Your task to perform on an android device: Clear the cart on target.com. Add bose quietcomfort 35 to the cart on target.com, then select checkout. Image 0: 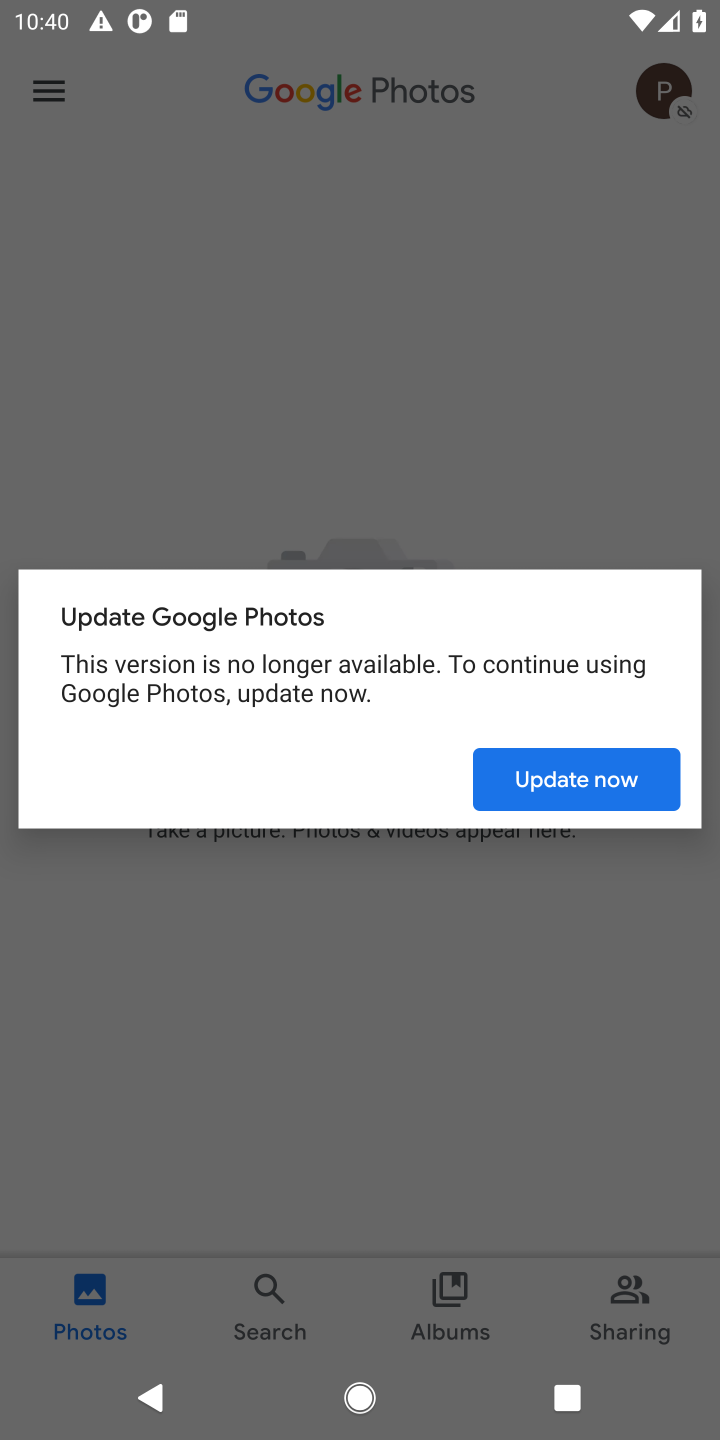
Step 0: press home button
Your task to perform on an android device: Clear the cart on target.com. Add bose quietcomfort 35 to the cart on target.com, then select checkout. Image 1: 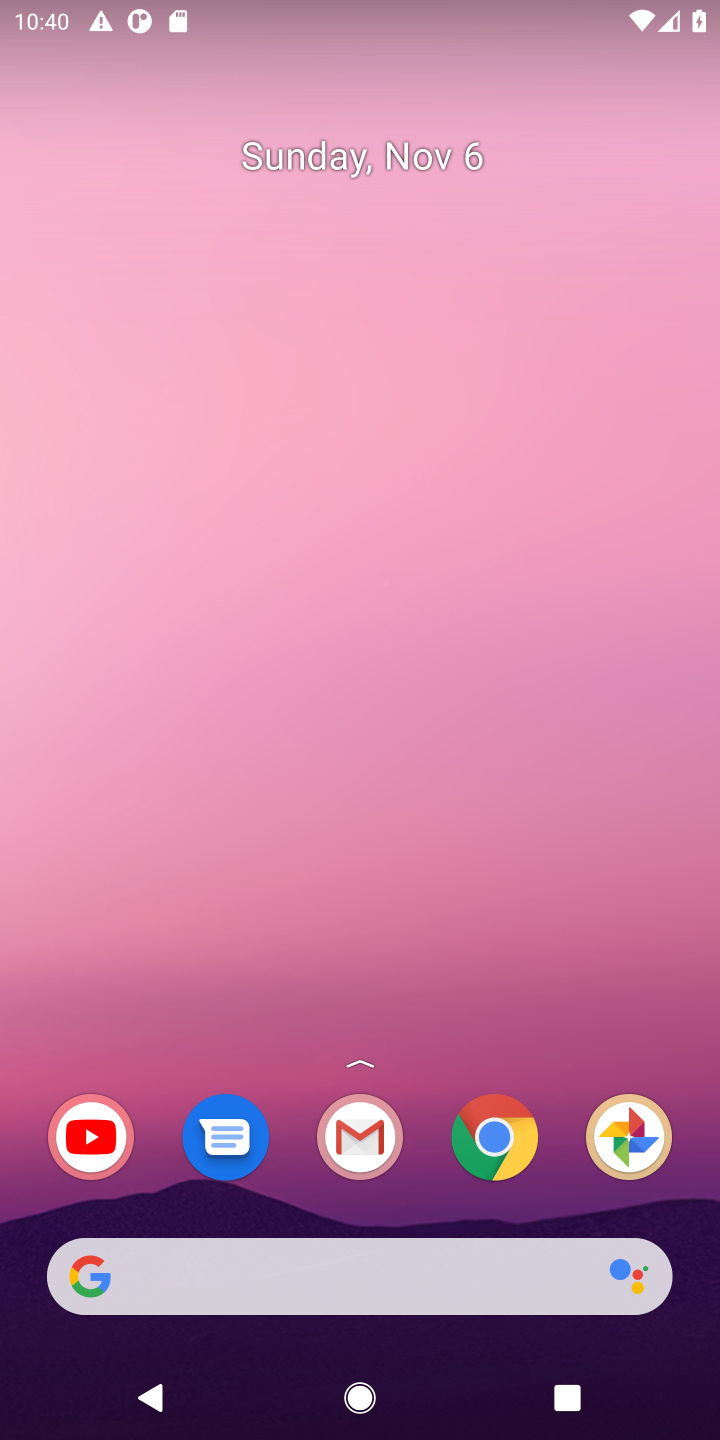
Step 1: drag from (435, 1079) to (336, 0)
Your task to perform on an android device: Clear the cart on target.com. Add bose quietcomfort 35 to the cart on target.com, then select checkout. Image 2: 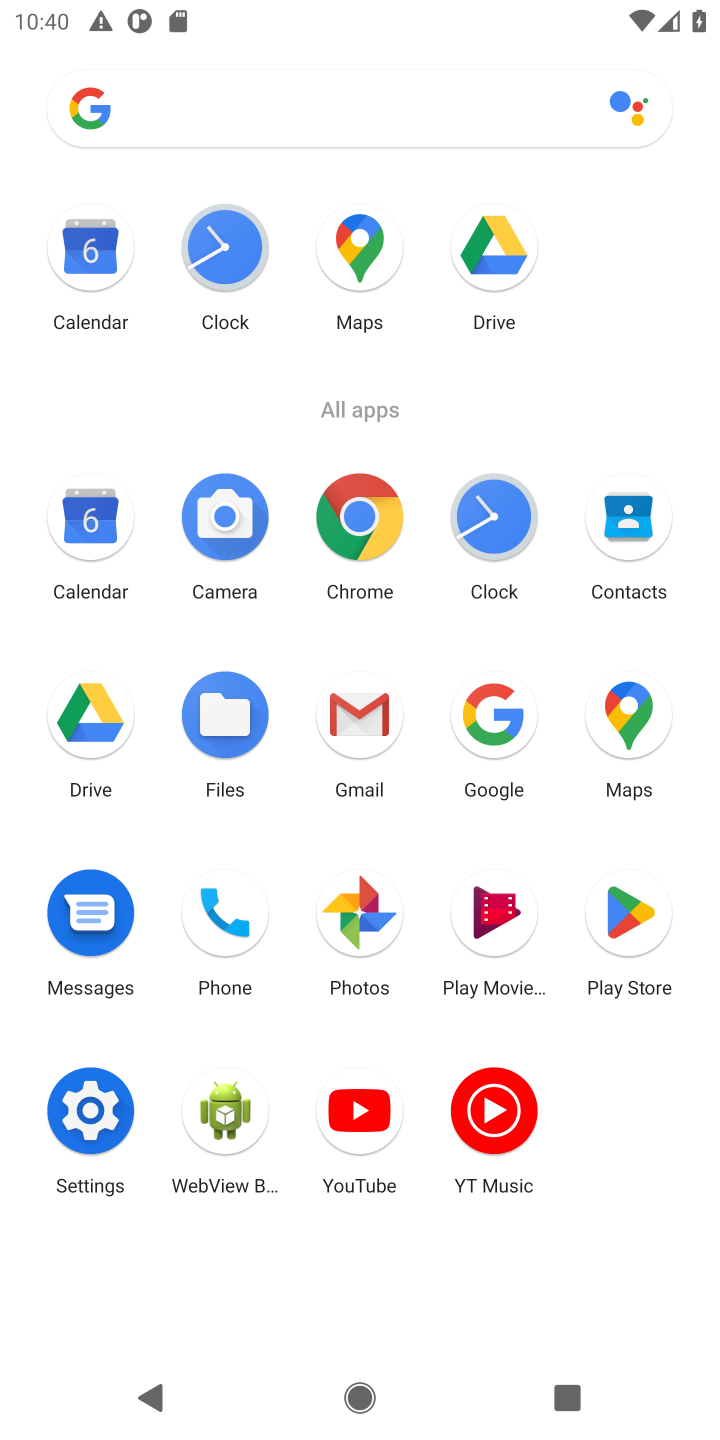
Step 2: click (363, 520)
Your task to perform on an android device: Clear the cart on target.com. Add bose quietcomfort 35 to the cart on target.com, then select checkout. Image 3: 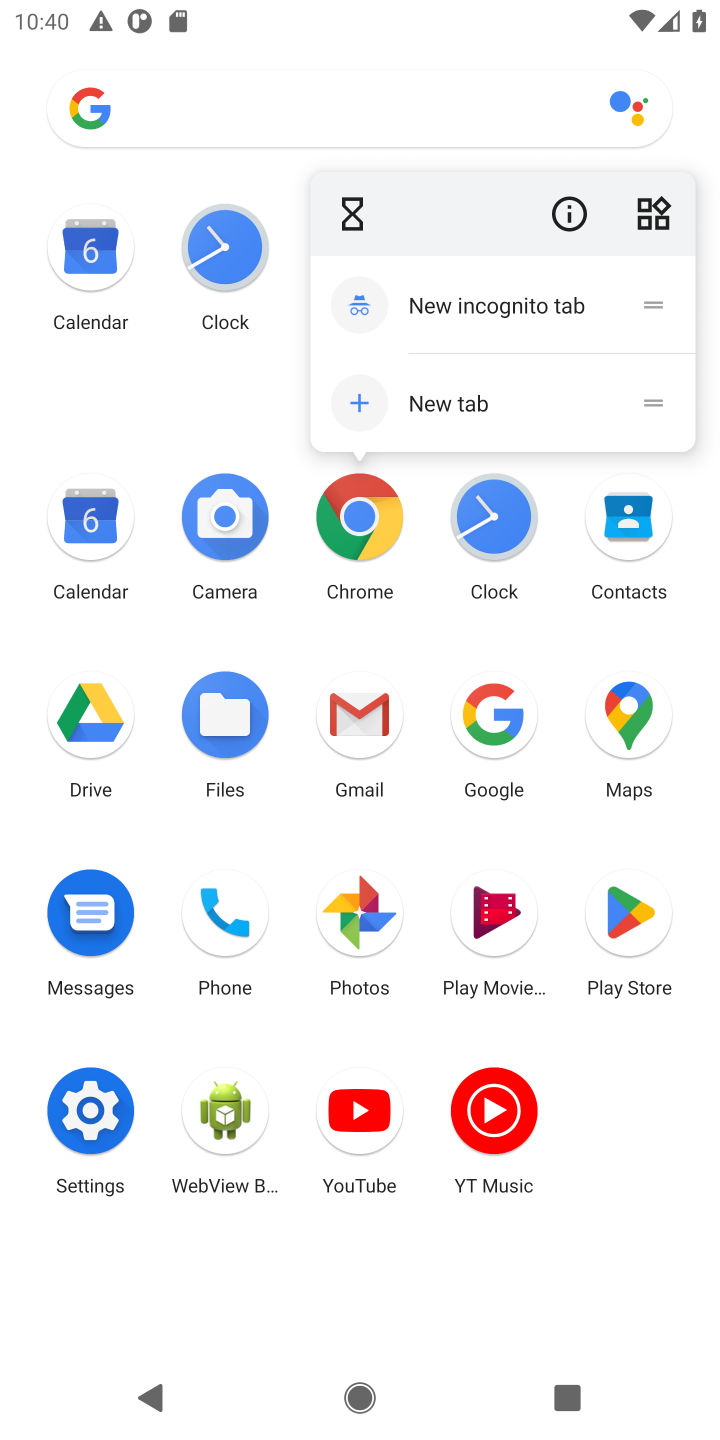
Step 3: click (361, 520)
Your task to perform on an android device: Clear the cart on target.com. Add bose quietcomfort 35 to the cart on target.com, then select checkout. Image 4: 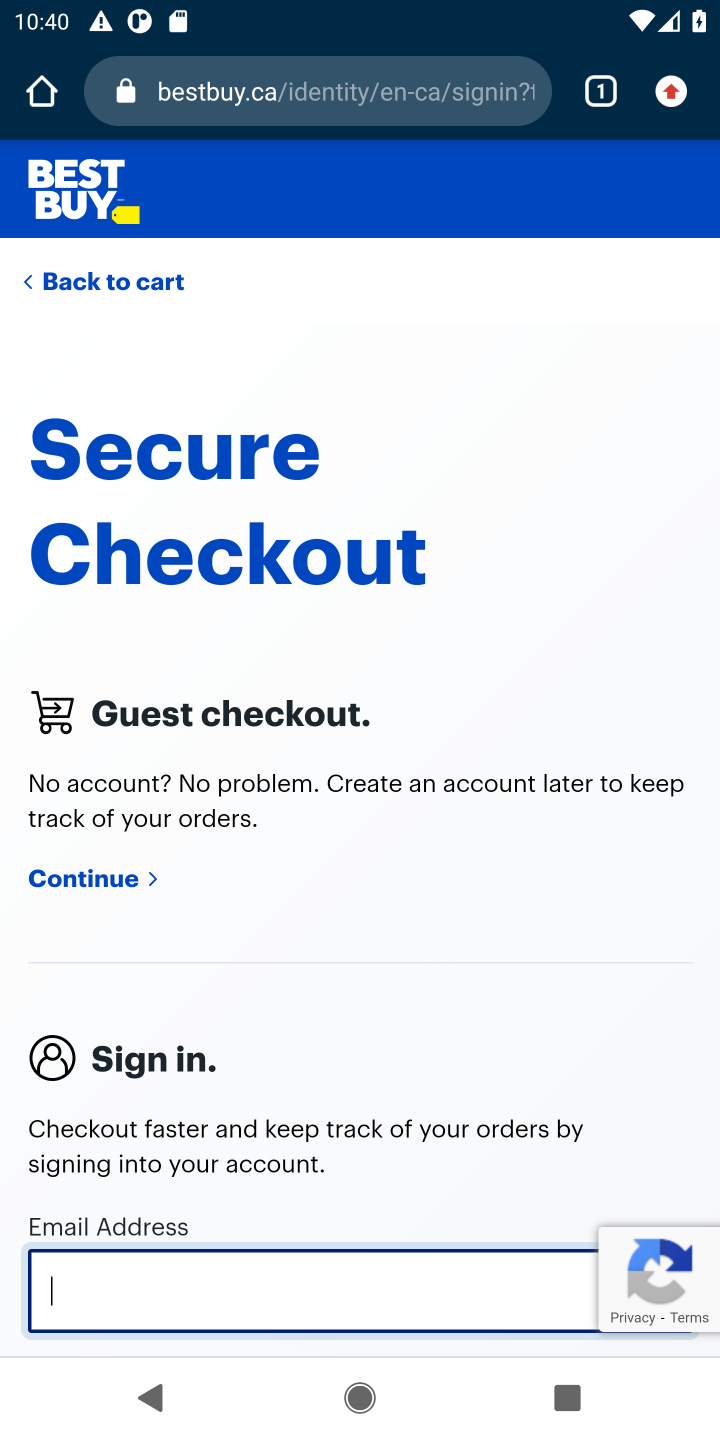
Step 4: click (378, 82)
Your task to perform on an android device: Clear the cart on target.com. Add bose quietcomfort 35 to the cart on target.com, then select checkout. Image 5: 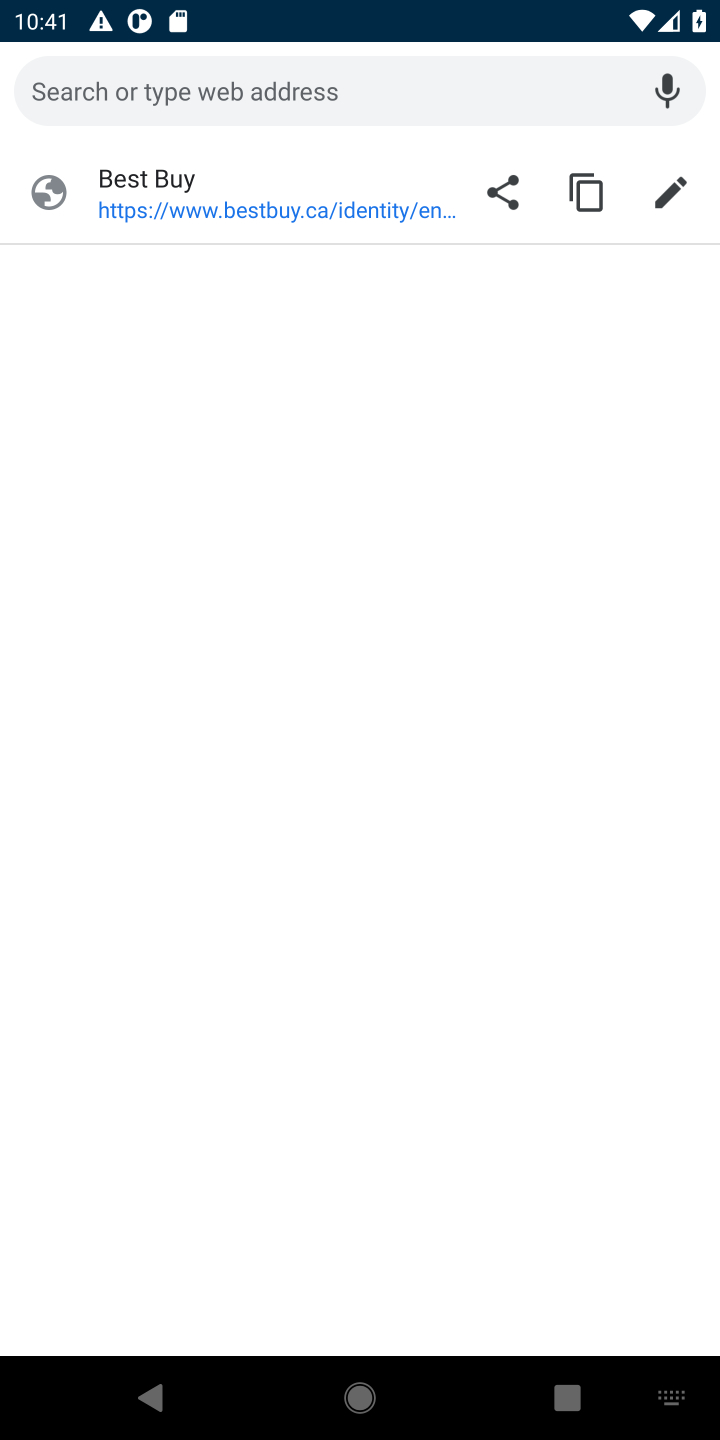
Step 5: type "target.com"
Your task to perform on an android device: Clear the cart on target.com. Add bose quietcomfort 35 to the cart on target.com, then select checkout. Image 6: 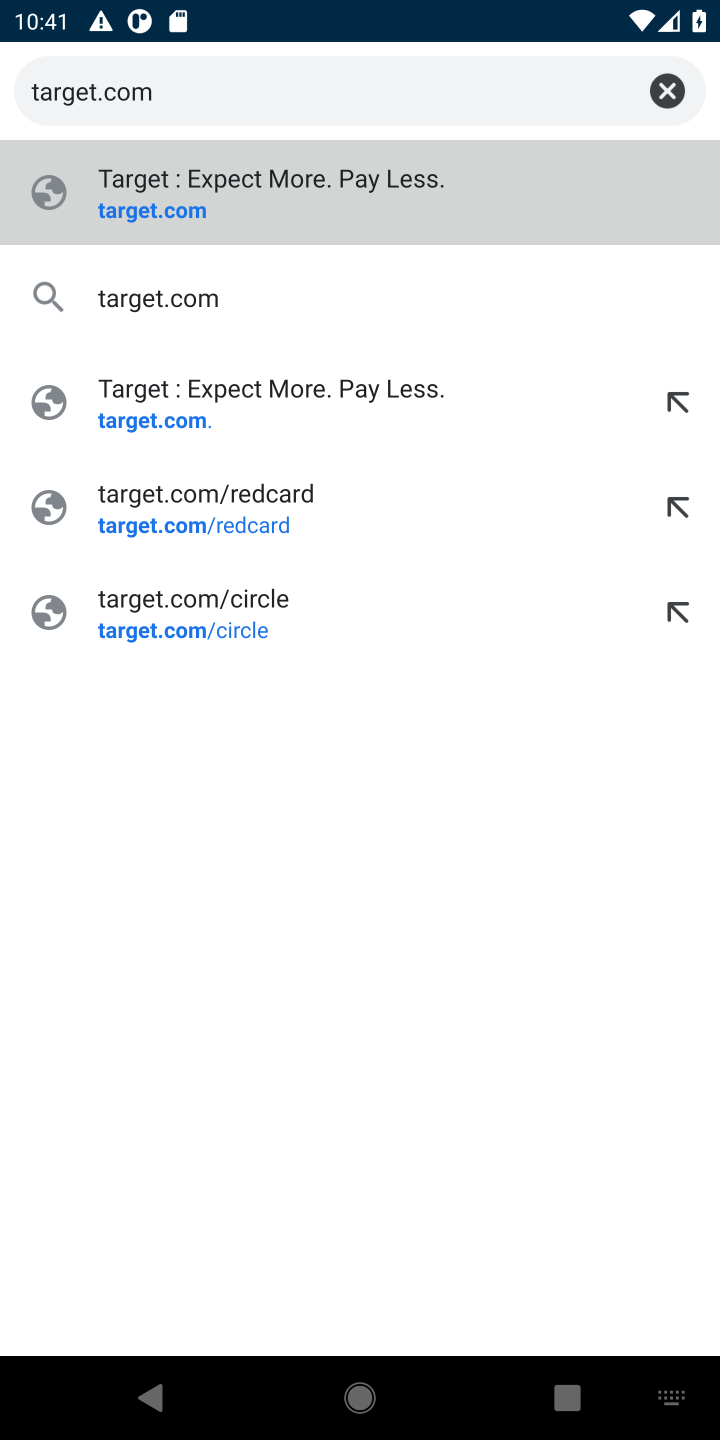
Step 6: press enter
Your task to perform on an android device: Clear the cart on target.com. Add bose quietcomfort 35 to the cart on target.com, then select checkout. Image 7: 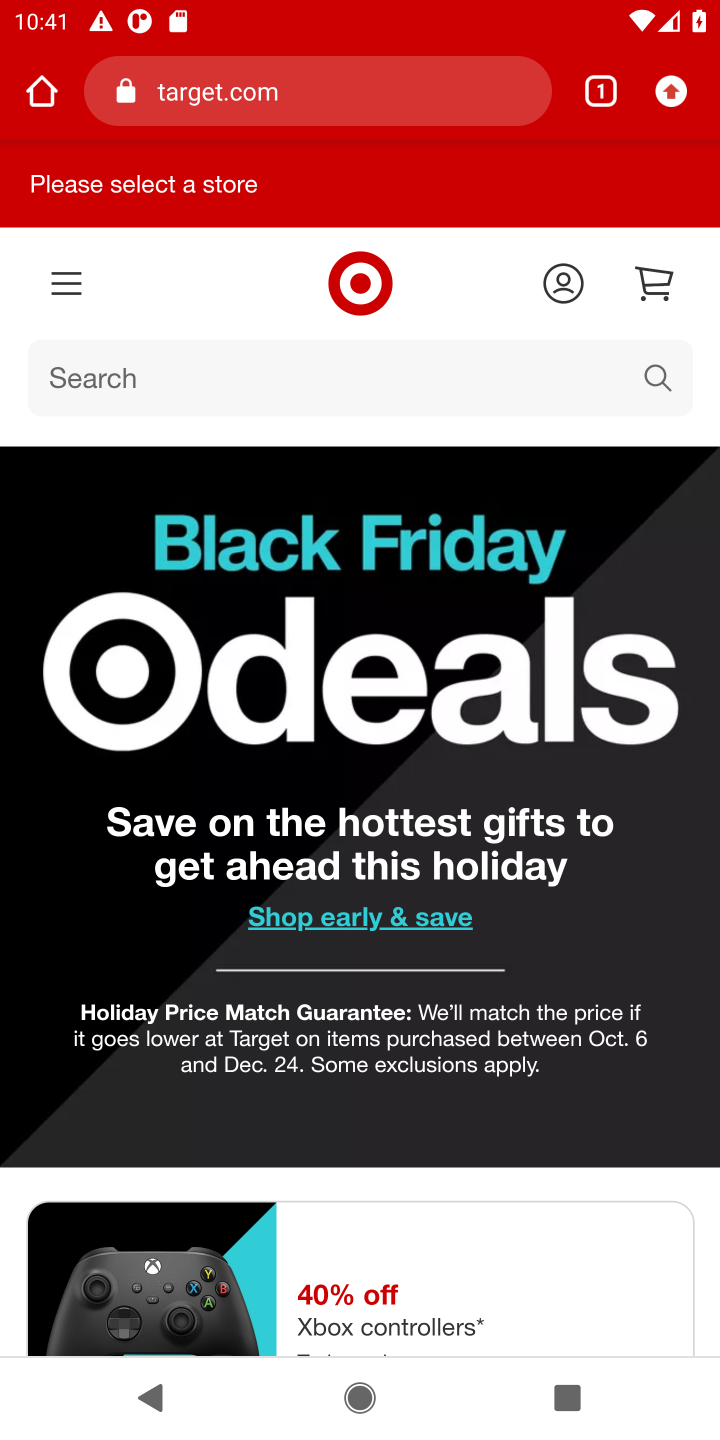
Step 7: click (662, 289)
Your task to perform on an android device: Clear the cart on target.com. Add bose quietcomfort 35 to the cart on target.com, then select checkout. Image 8: 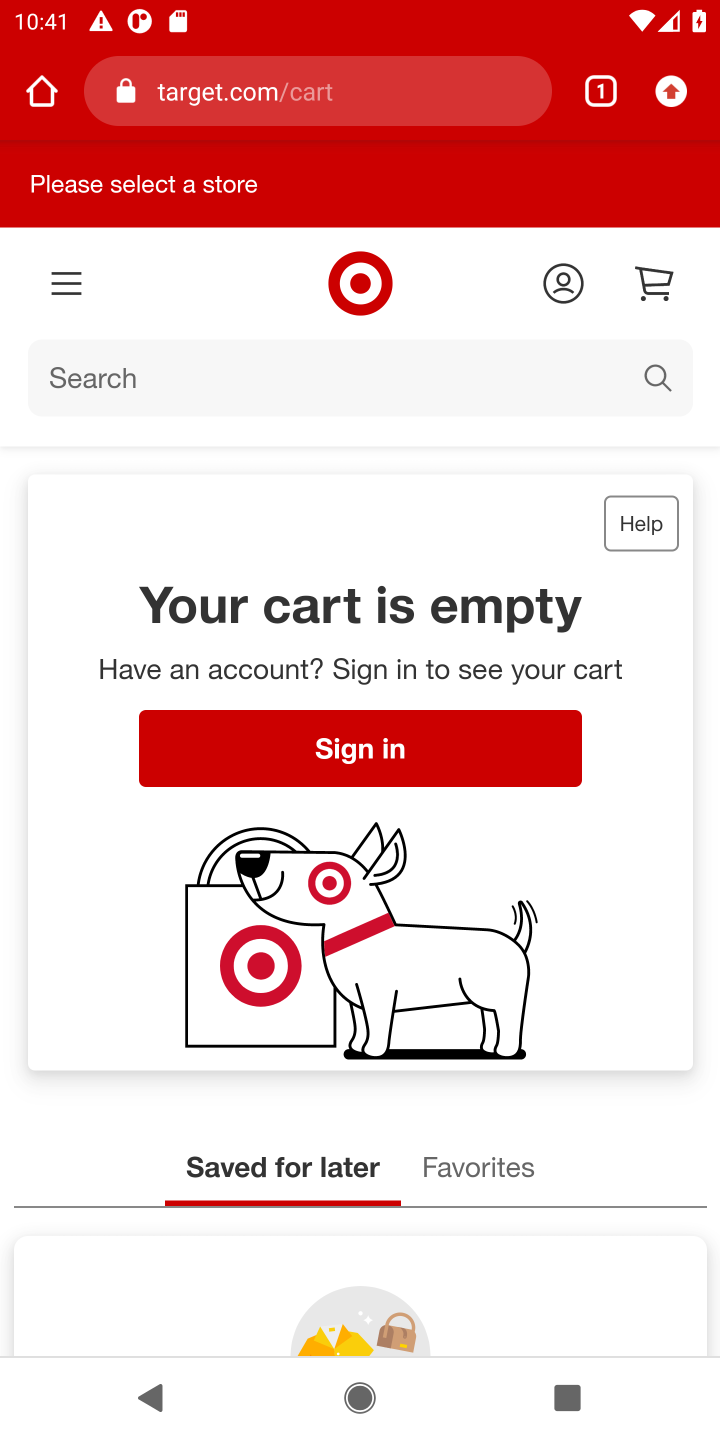
Step 8: click (506, 383)
Your task to perform on an android device: Clear the cart on target.com. Add bose quietcomfort 35 to the cart on target.com, then select checkout. Image 9: 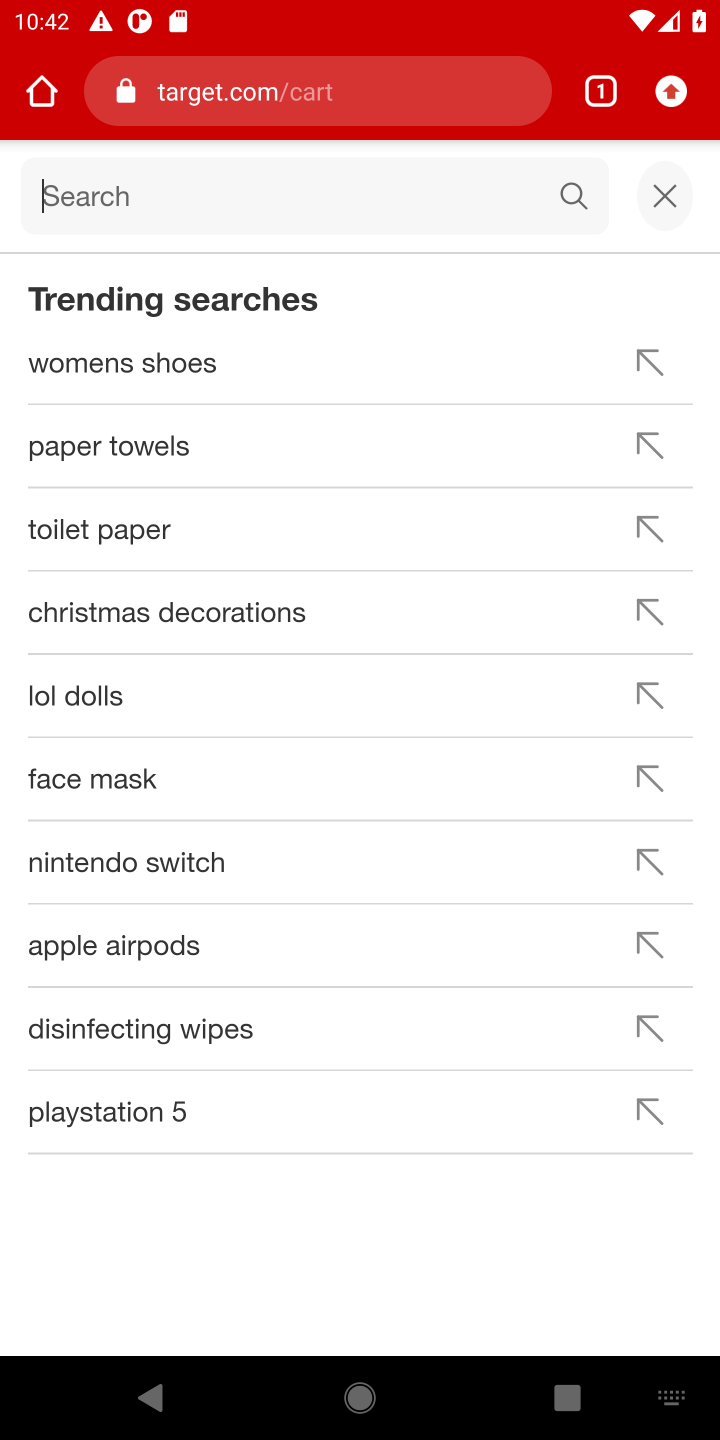
Step 9: type "bose quietcomfort 5"
Your task to perform on an android device: Clear the cart on target.com. Add bose quietcomfort 35 to the cart on target.com, then select checkout. Image 10: 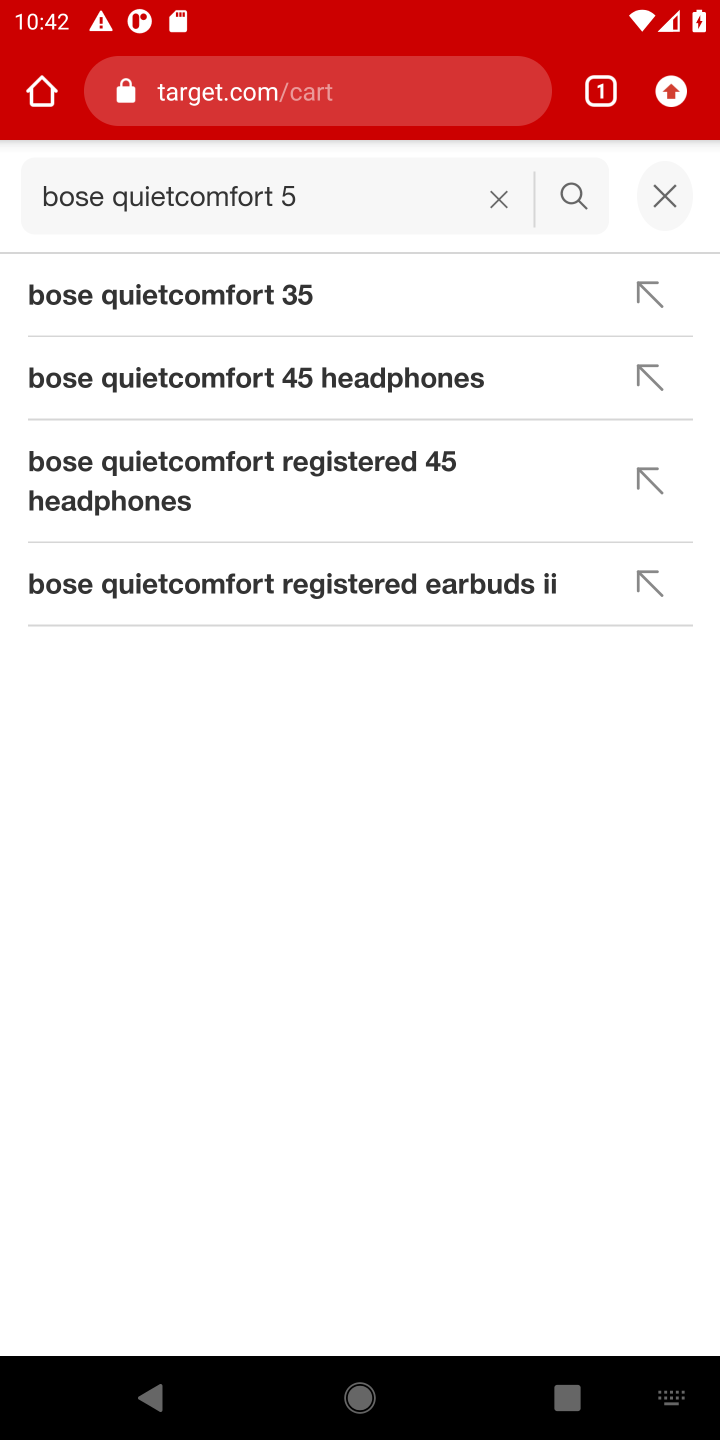
Step 10: press enter
Your task to perform on an android device: Clear the cart on target.com. Add bose quietcomfort 35 to the cart on target.com, then select checkout. Image 11: 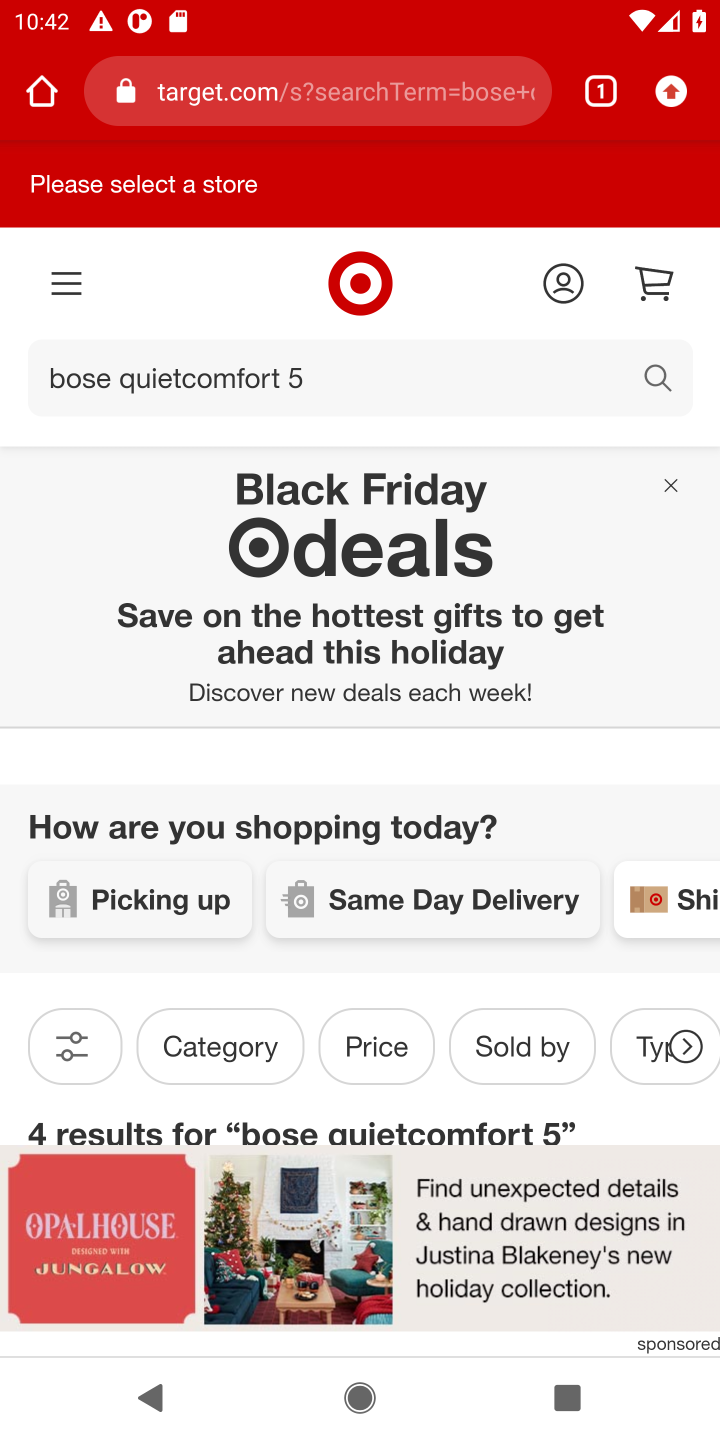
Step 11: drag from (465, 1123) to (496, 352)
Your task to perform on an android device: Clear the cart on target.com. Add bose quietcomfort 35 to the cart on target.com, then select checkout. Image 12: 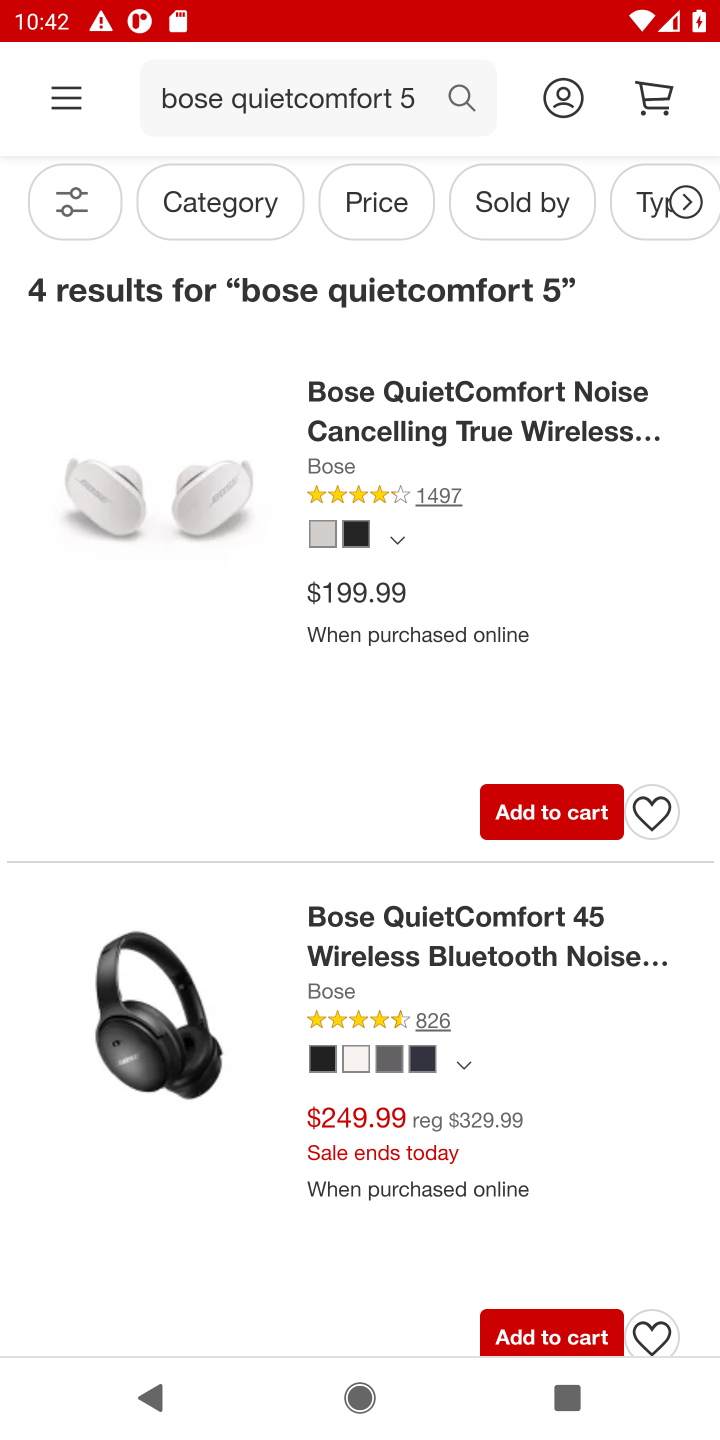
Step 12: click (395, 1137)
Your task to perform on an android device: Clear the cart on target.com. Add bose quietcomfort 35 to the cart on target.com, then select checkout. Image 13: 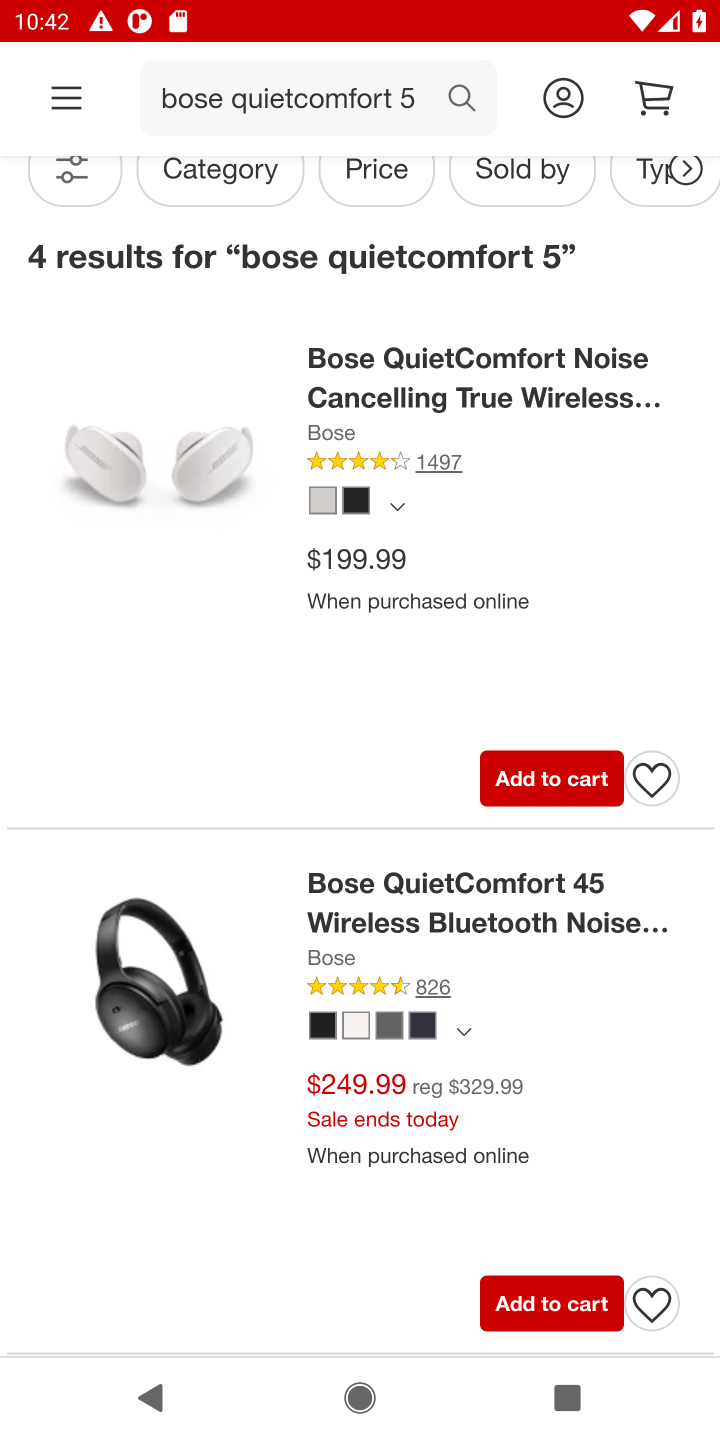
Step 13: drag from (395, 683) to (260, 1363)
Your task to perform on an android device: Clear the cart on target.com. Add bose quietcomfort 35 to the cart on target.com, then select checkout. Image 14: 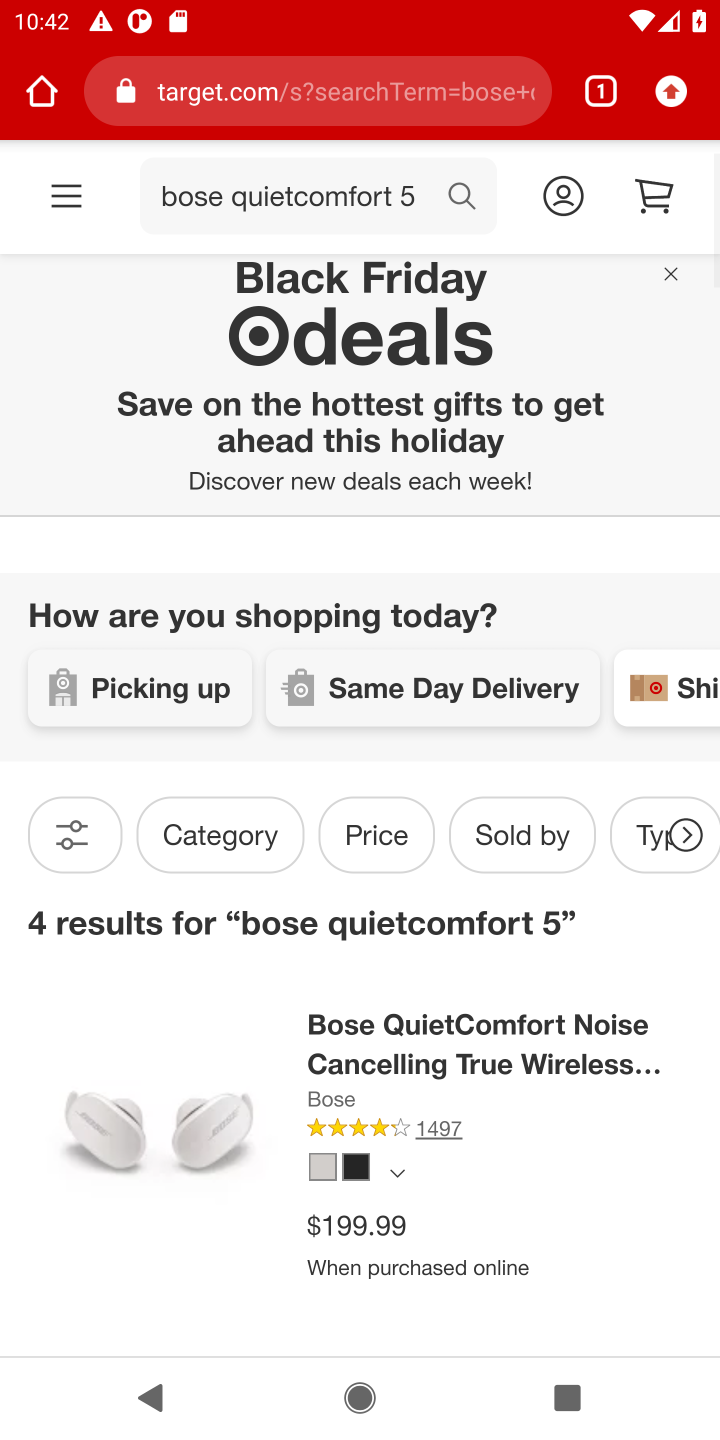
Step 14: drag from (366, 999) to (358, 1071)
Your task to perform on an android device: Clear the cart on target.com. Add bose quietcomfort 35 to the cart on target.com, then select checkout. Image 15: 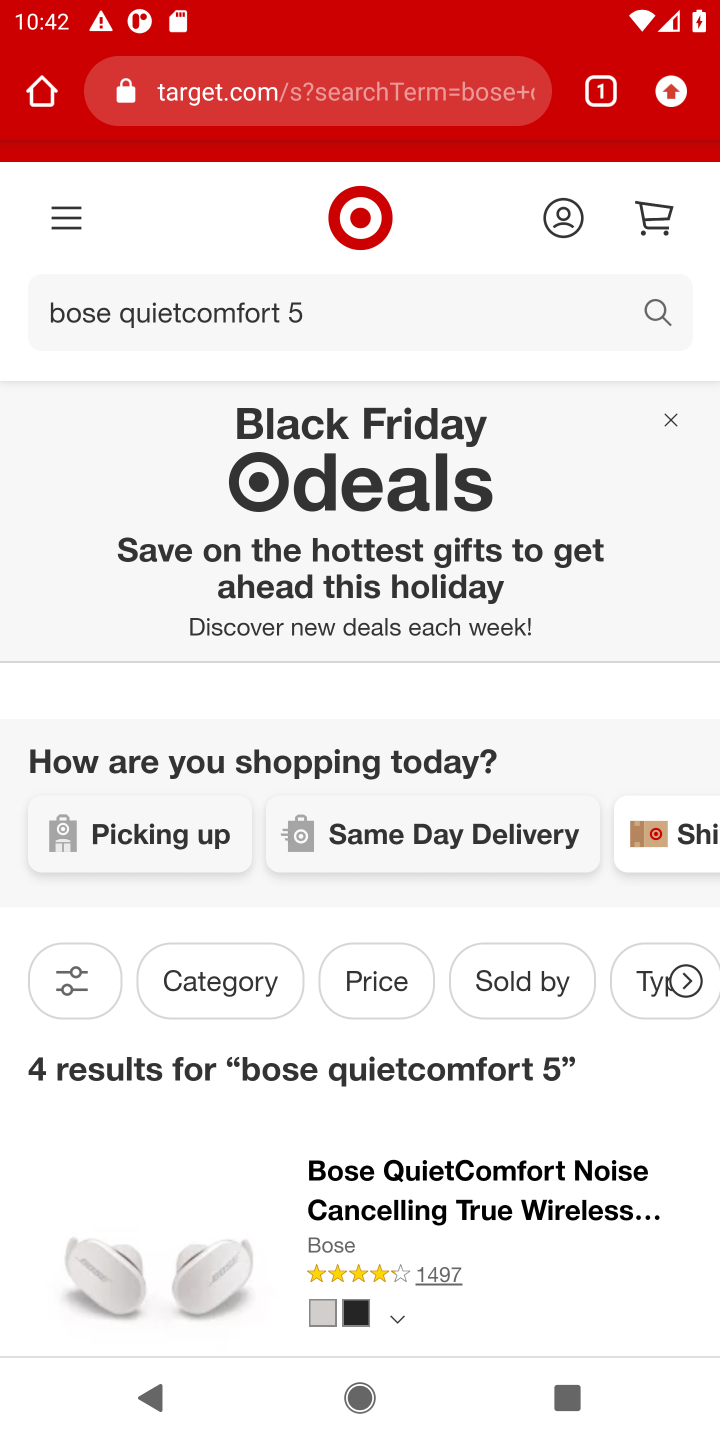
Step 15: click (292, 306)
Your task to perform on an android device: Clear the cart on target.com. Add bose quietcomfort 35 to the cart on target.com, then select checkout. Image 16: 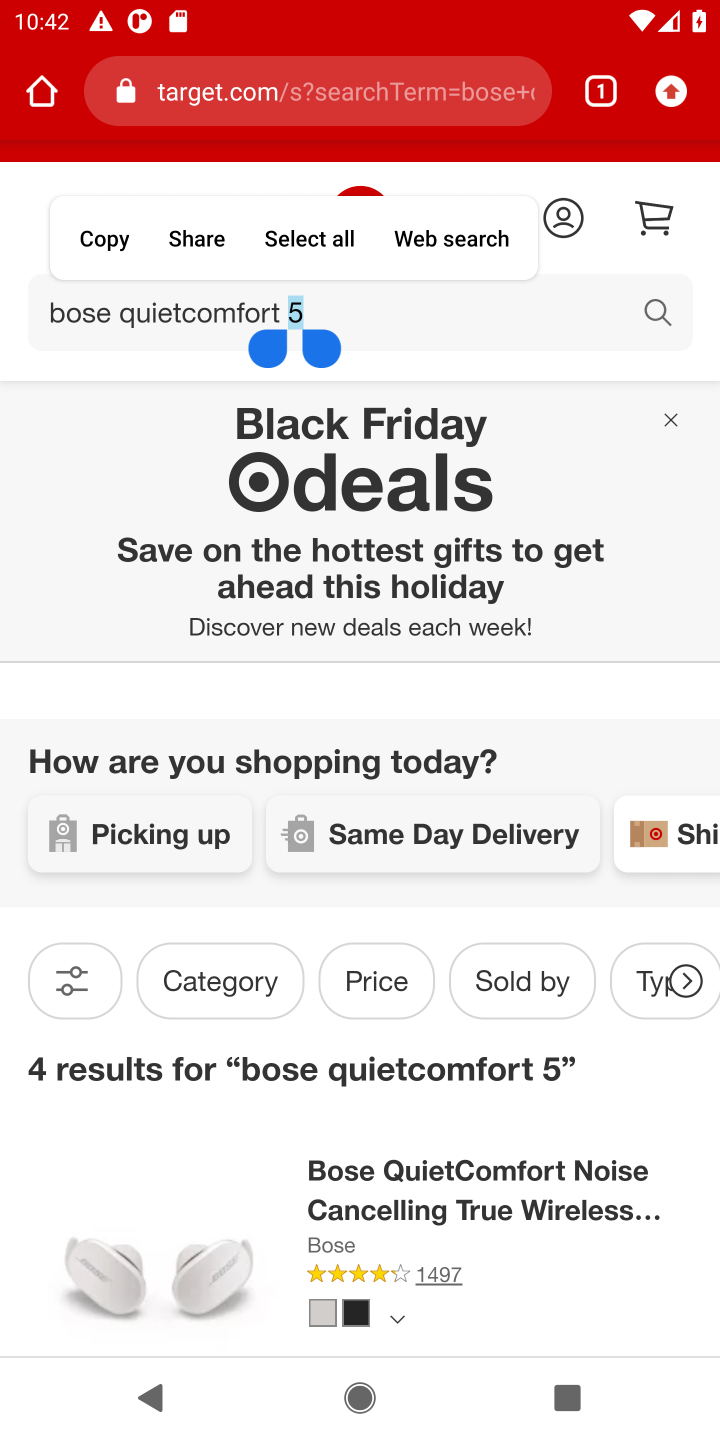
Step 16: type "35"
Your task to perform on an android device: Clear the cart on target.com. Add bose quietcomfort 35 to the cart on target.com, then select checkout. Image 17: 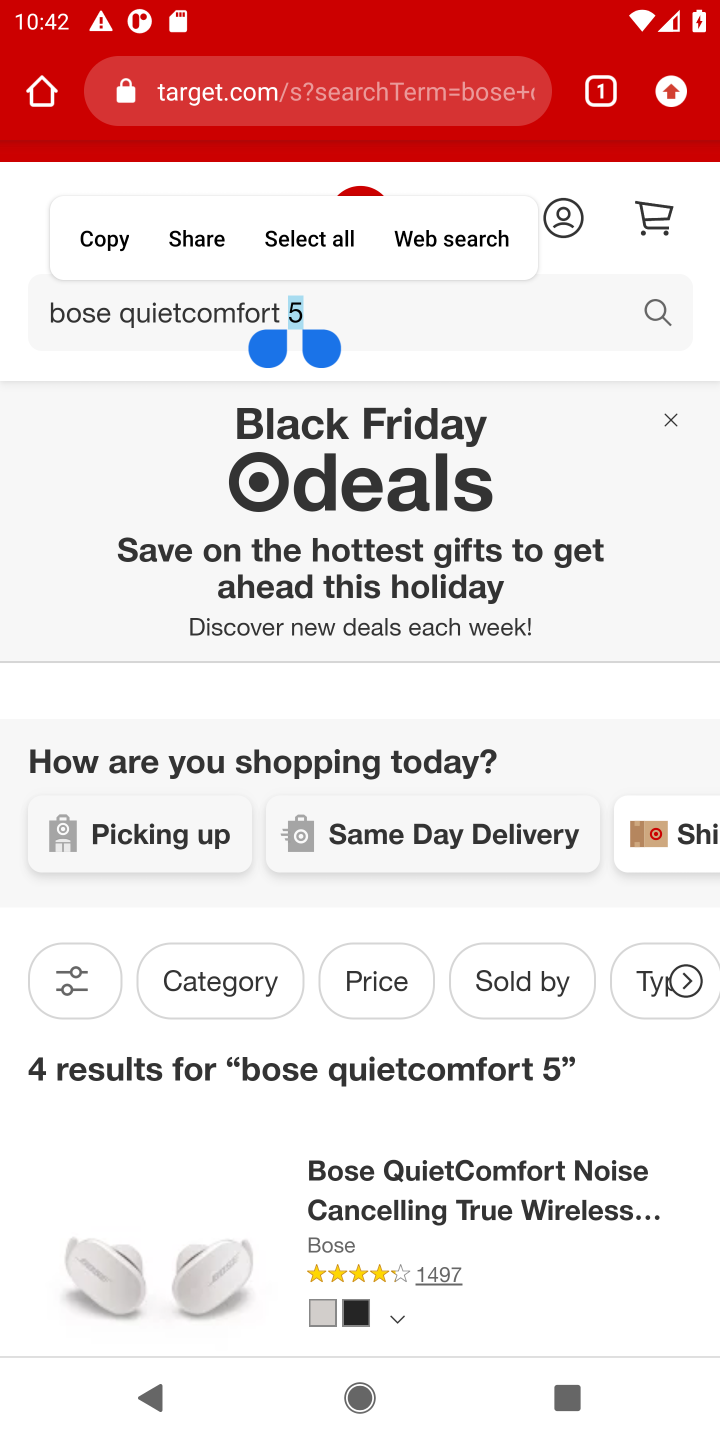
Step 17: type ""
Your task to perform on an android device: Clear the cart on target.com. Add bose quietcomfort 35 to the cart on target.com, then select checkout. Image 18: 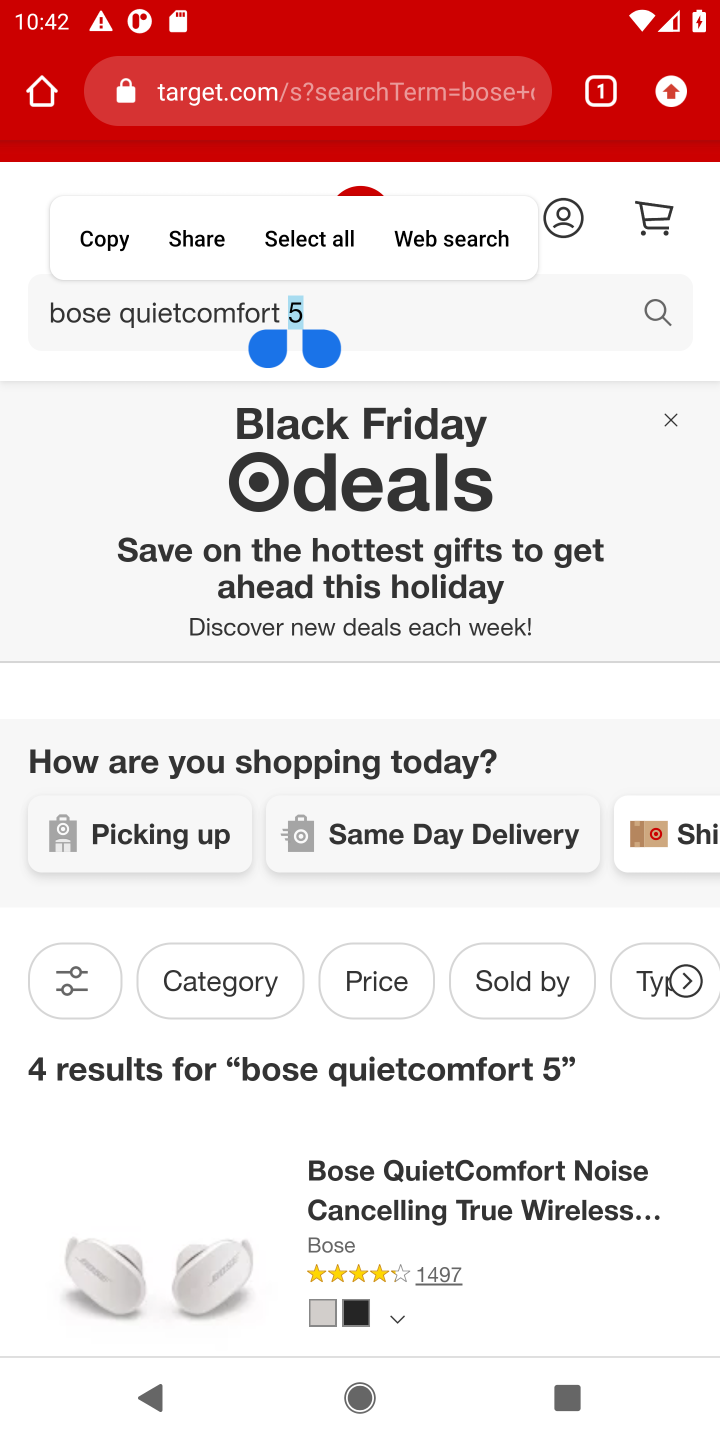
Step 18: click (340, 246)
Your task to perform on an android device: Clear the cart on target.com. Add bose quietcomfort 35 to the cart on target.com, then select checkout. Image 19: 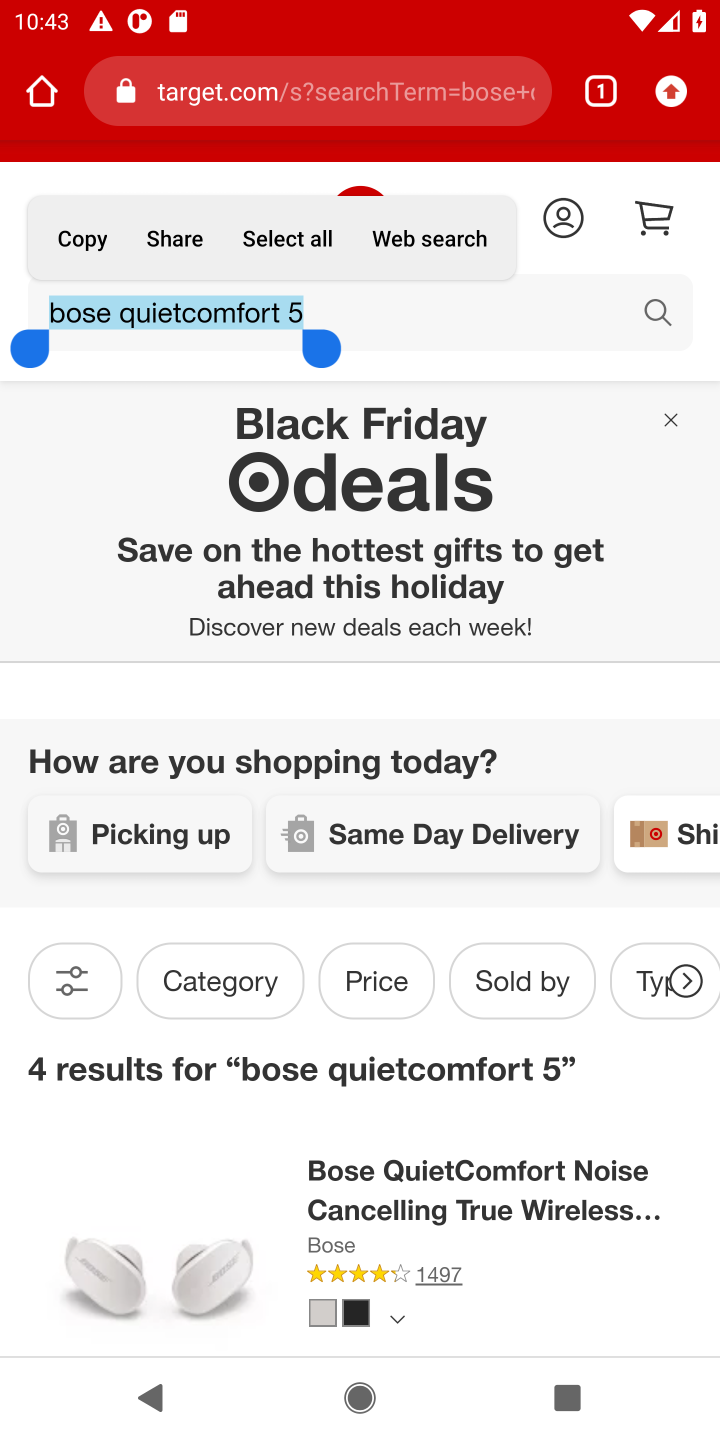
Step 19: click (512, 323)
Your task to perform on an android device: Clear the cart on target.com. Add bose quietcomfort 35 to the cart on target.com, then select checkout. Image 20: 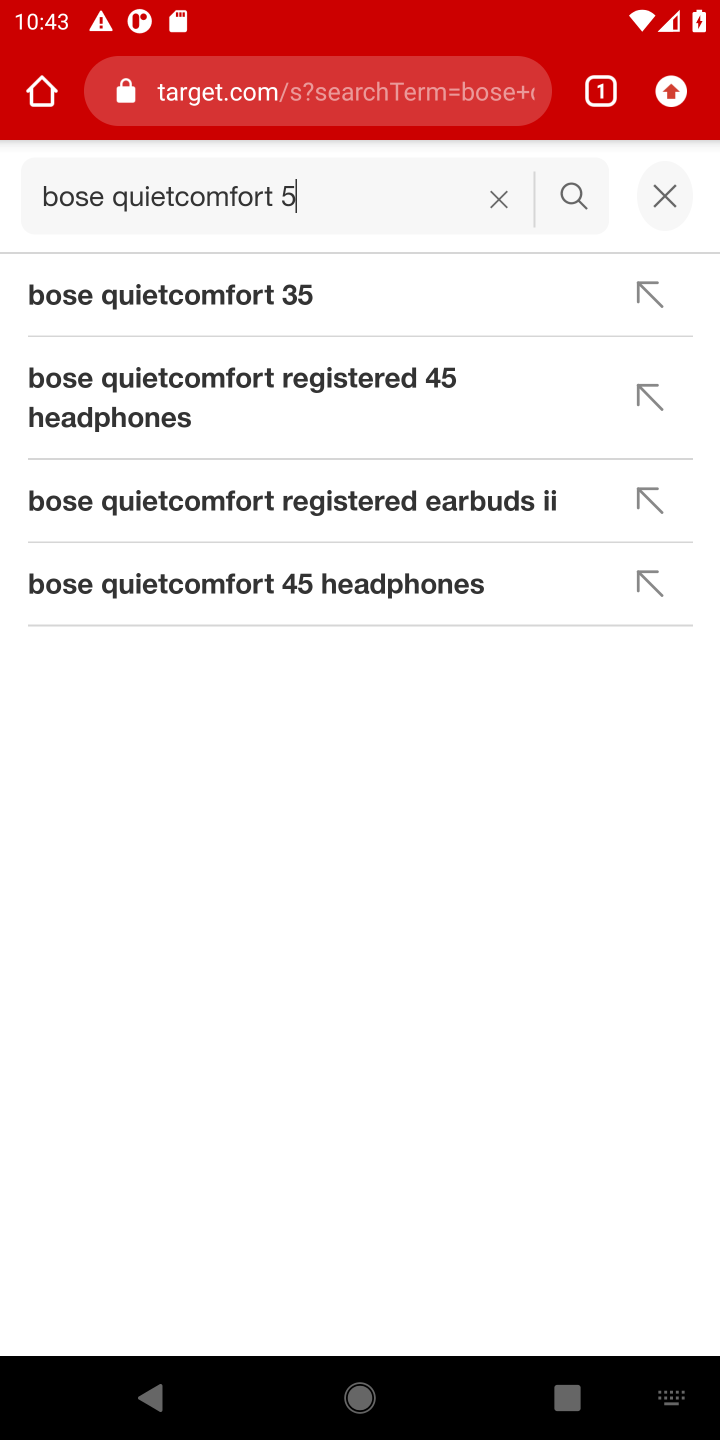
Step 20: click (339, 297)
Your task to perform on an android device: Clear the cart on target.com. Add bose quietcomfort 35 to the cart on target.com, then select checkout. Image 21: 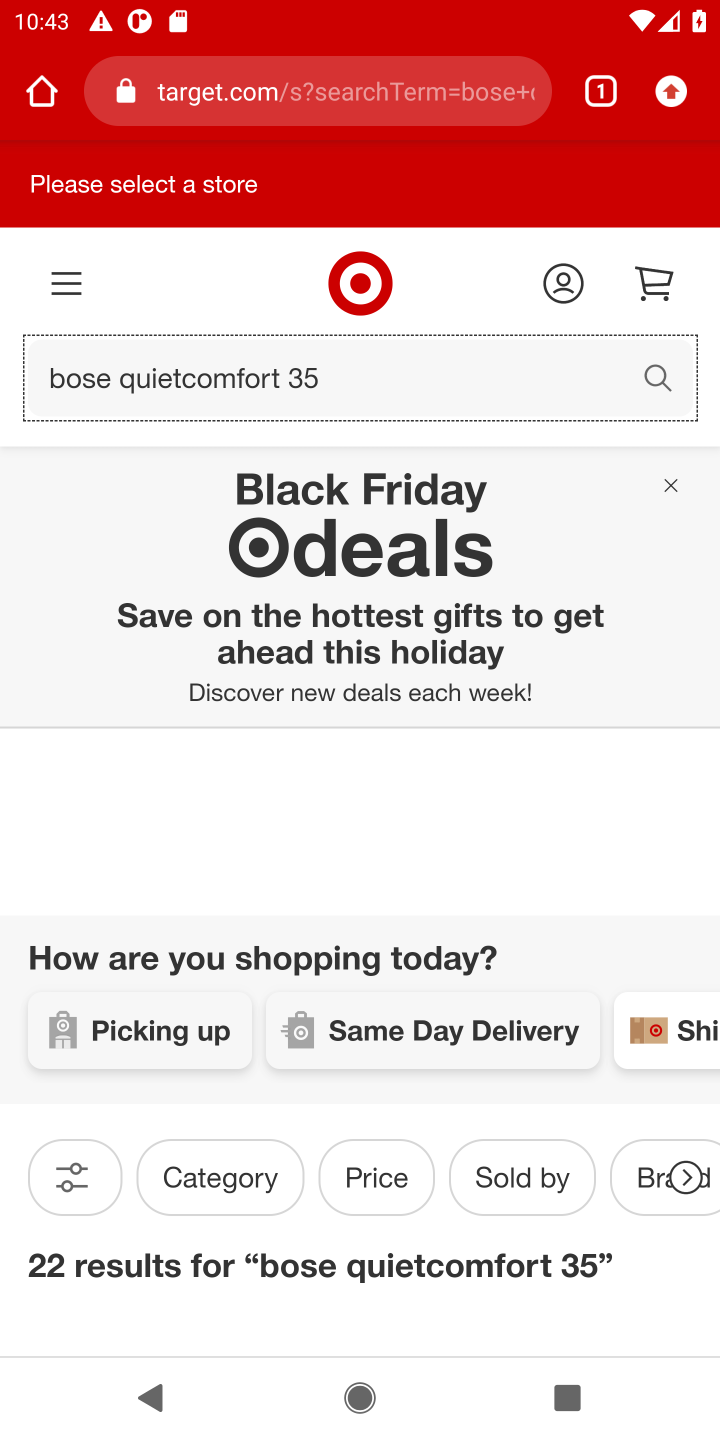
Step 21: drag from (393, 948) to (360, 254)
Your task to perform on an android device: Clear the cart on target.com. Add bose quietcomfort 35 to the cart on target.com, then select checkout. Image 22: 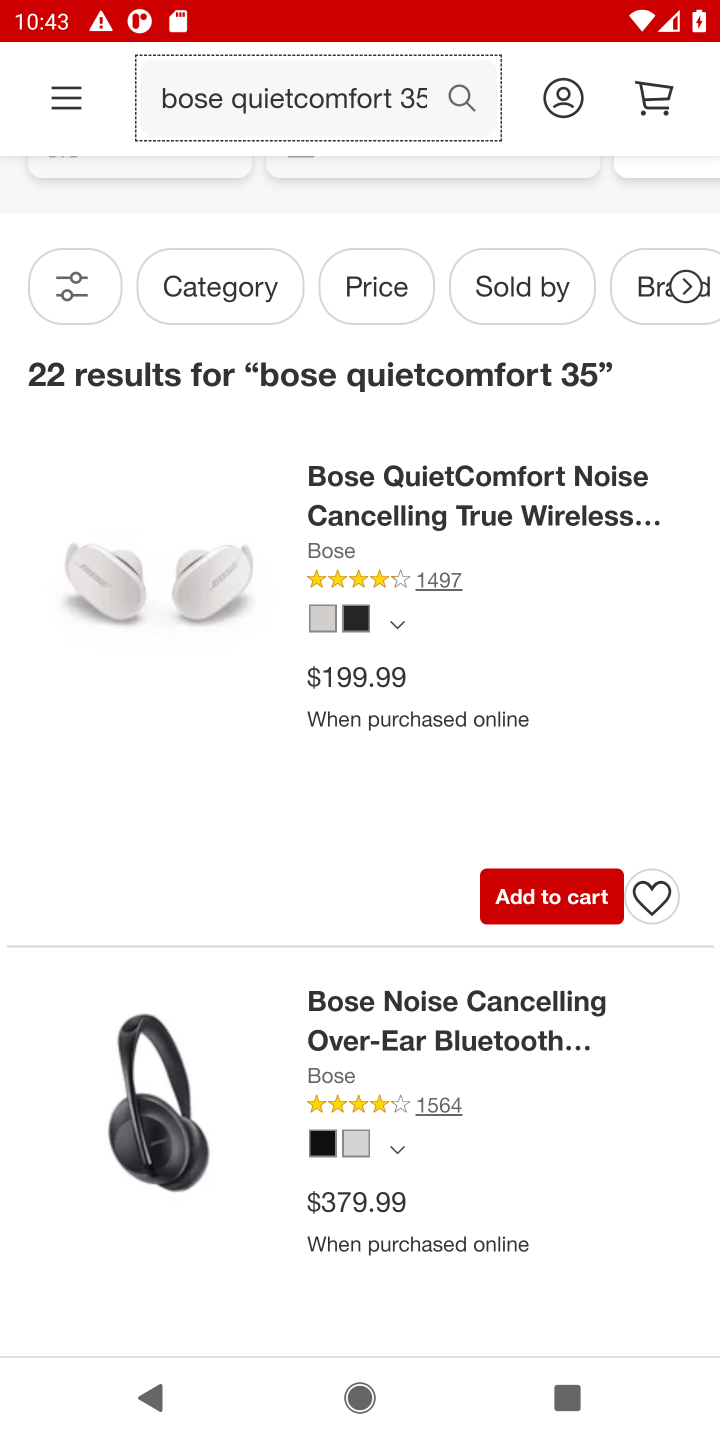
Step 22: click (512, 474)
Your task to perform on an android device: Clear the cart on target.com. Add bose quietcomfort 35 to the cart on target.com, then select checkout. Image 23: 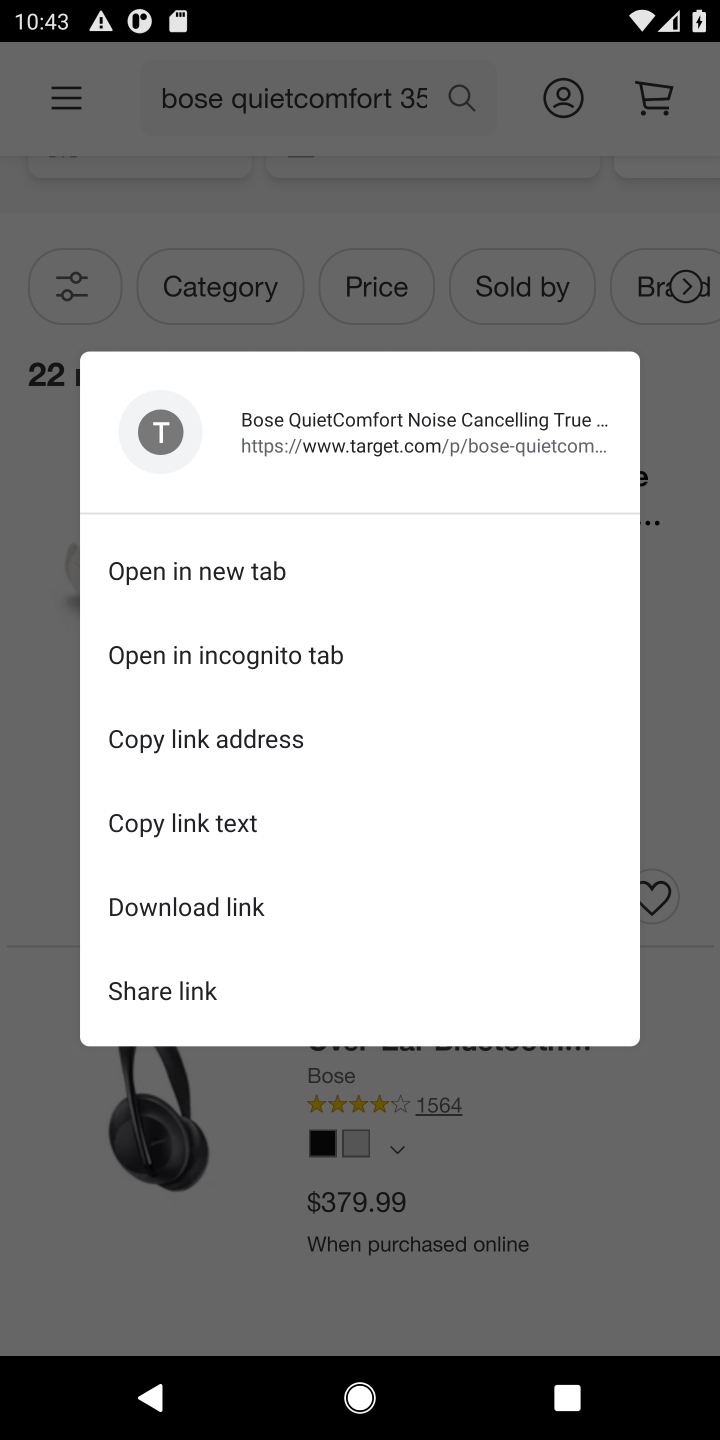
Step 23: click (36, 501)
Your task to perform on an android device: Clear the cart on target.com. Add bose quietcomfort 35 to the cart on target.com, then select checkout. Image 24: 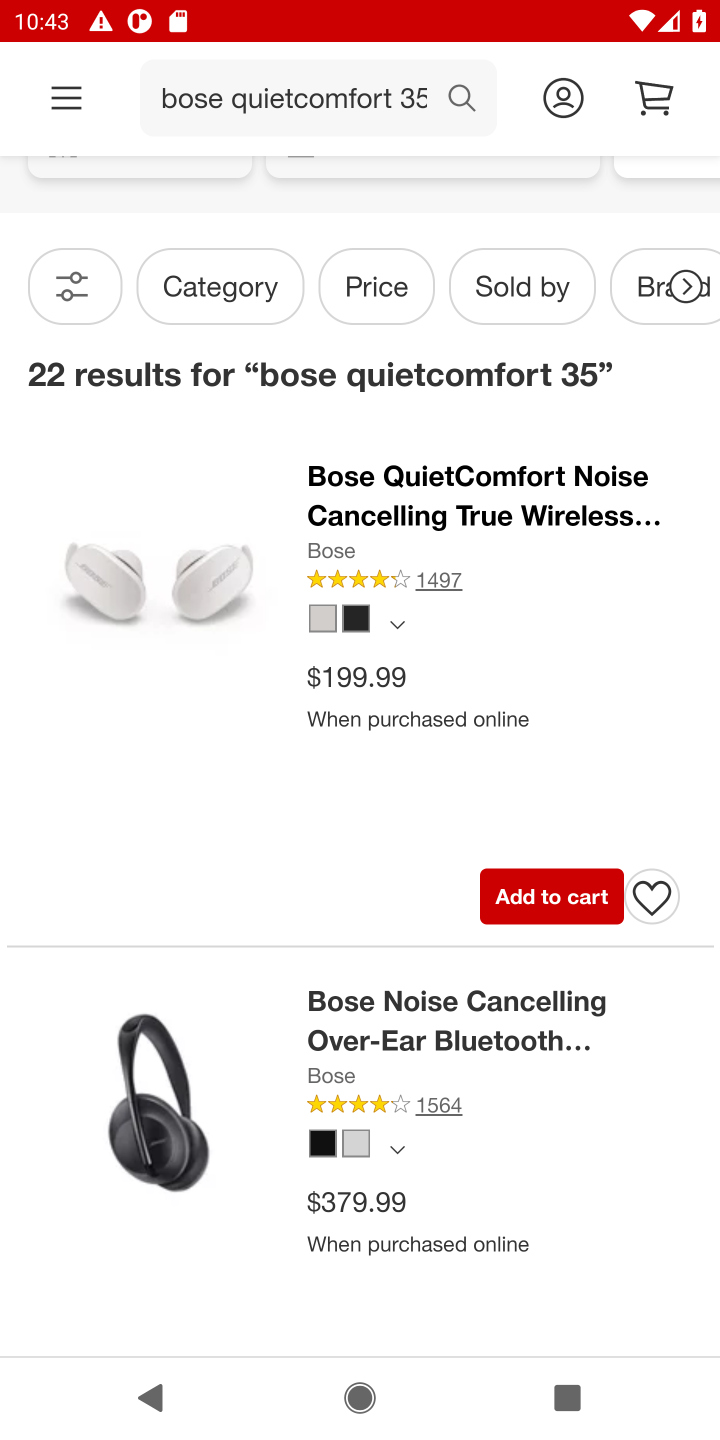
Step 24: click (350, 522)
Your task to perform on an android device: Clear the cart on target.com. Add bose quietcomfort 35 to the cart on target.com, then select checkout. Image 25: 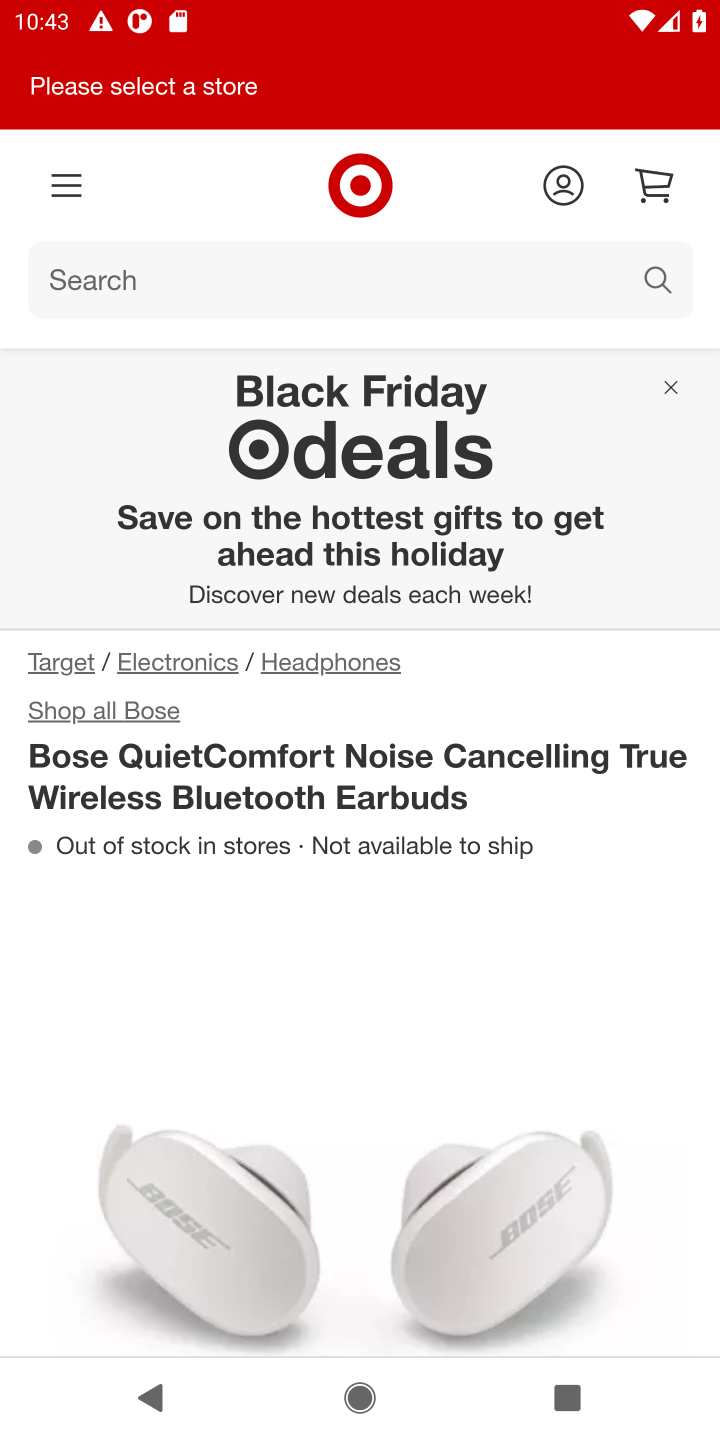
Step 25: task complete